Your task to perform on an android device: Search for logitech g pro on target, select the first entry, add it to the cart, then select checkout. Image 0: 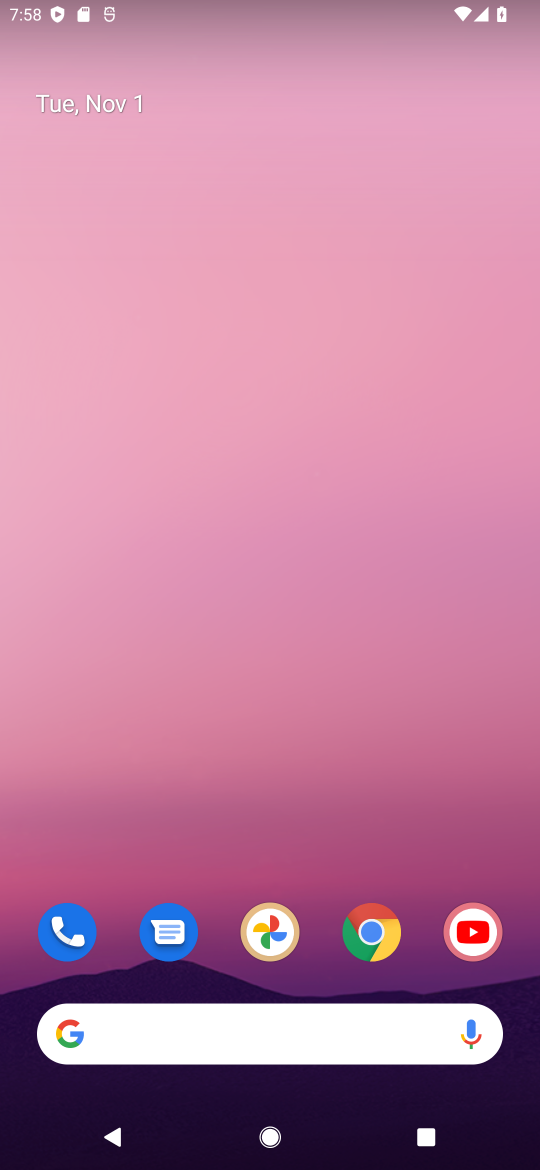
Step 0: click (371, 934)
Your task to perform on an android device: Search for logitech g pro on target, select the first entry, add it to the cart, then select checkout. Image 1: 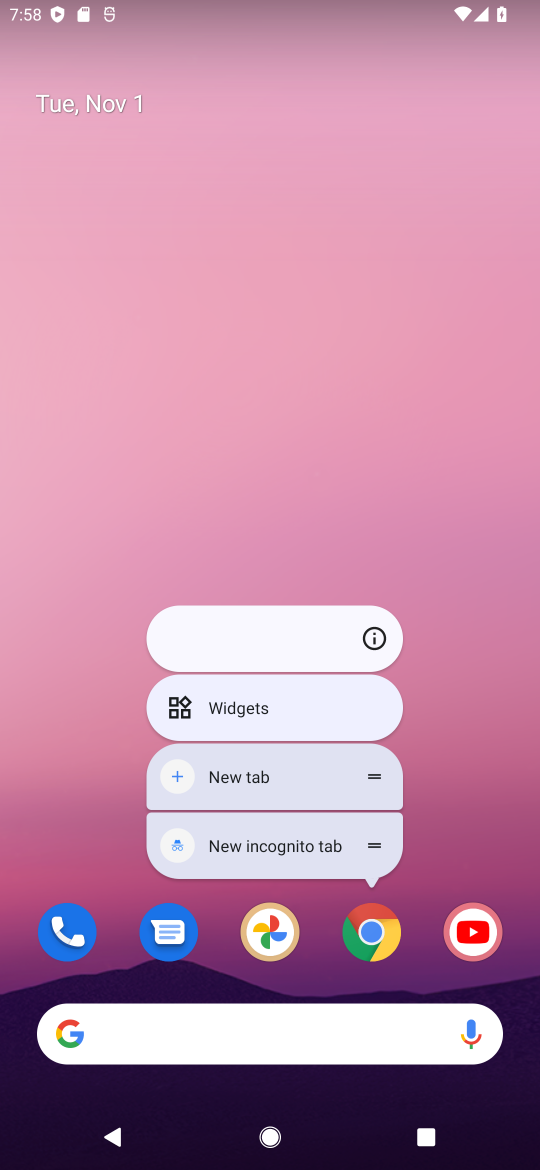
Step 1: click (372, 934)
Your task to perform on an android device: Search for logitech g pro on target, select the first entry, add it to the cart, then select checkout. Image 2: 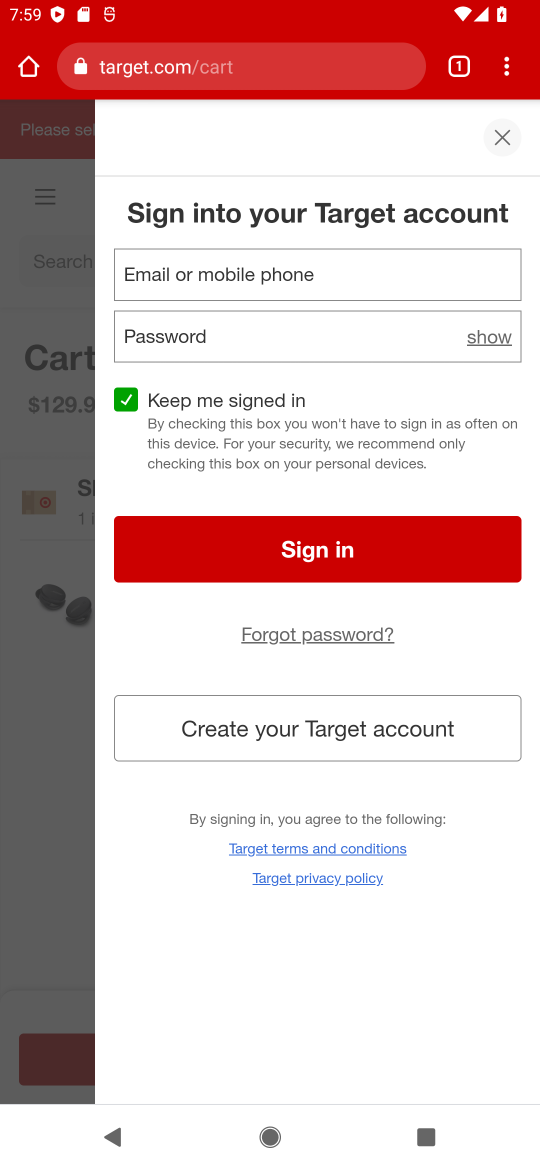
Step 2: click (513, 143)
Your task to perform on an android device: Search for logitech g pro on target, select the first entry, add it to the cart, then select checkout. Image 3: 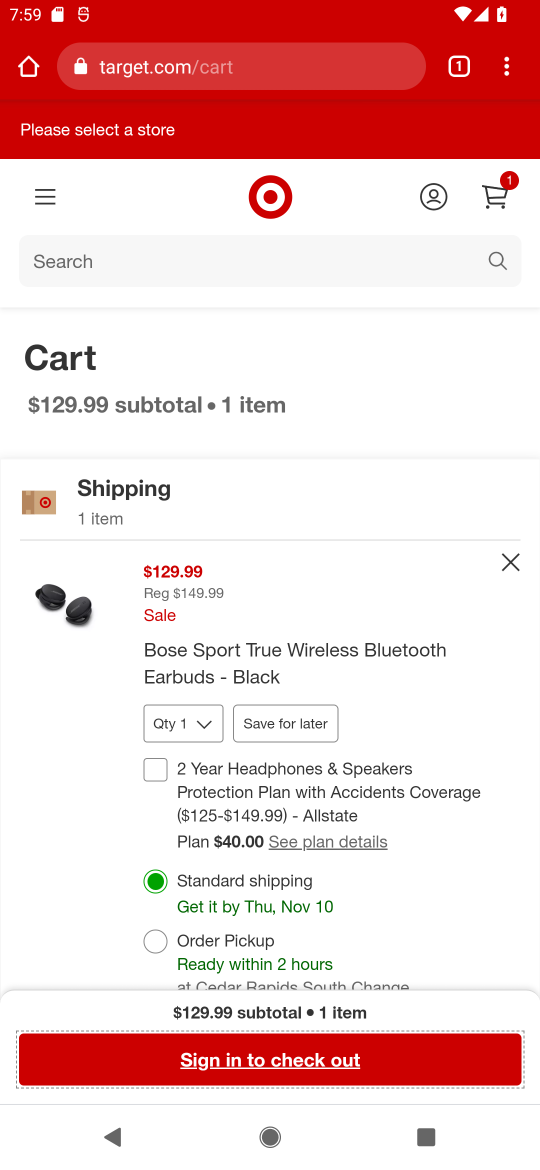
Step 3: drag from (166, 299) to (232, 922)
Your task to perform on an android device: Search for logitech g pro on target, select the first entry, add it to the cart, then select checkout. Image 4: 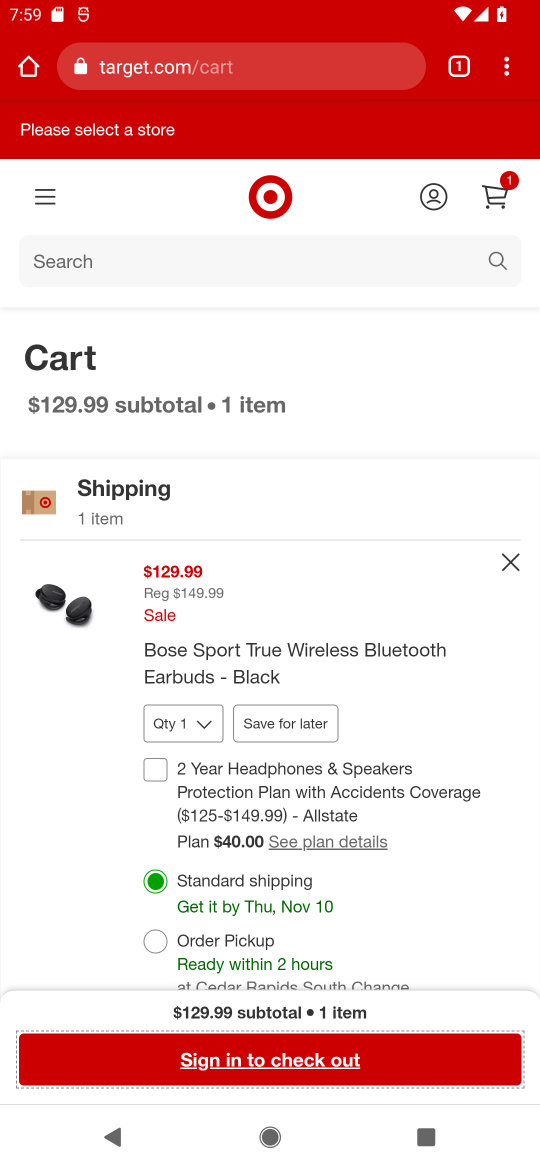
Step 4: click (494, 259)
Your task to perform on an android device: Search for logitech g pro on target, select the first entry, add it to the cart, then select checkout. Image 5: 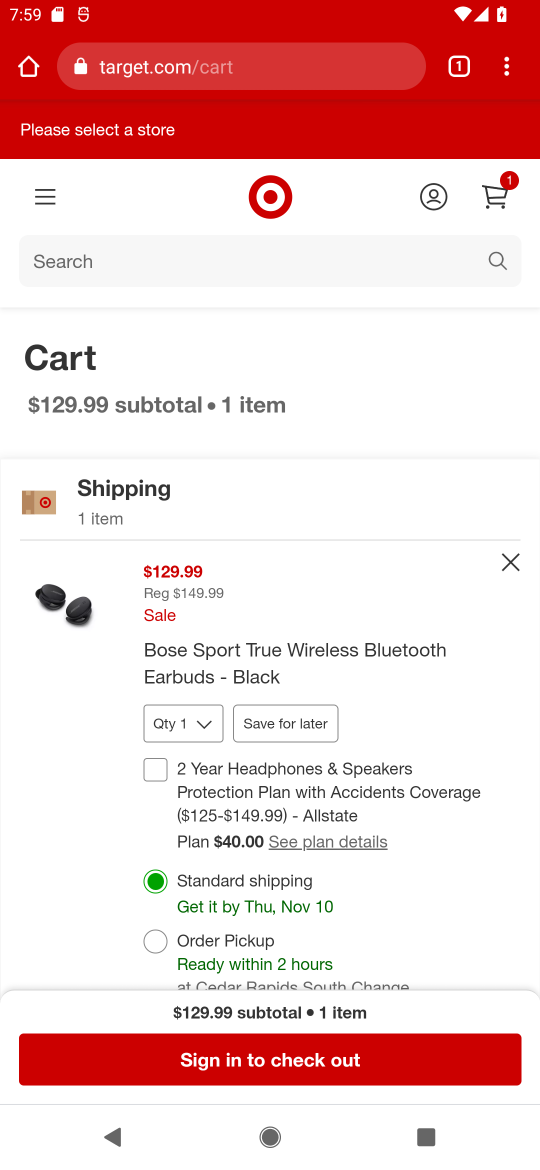
Step 5: click (500, 262)
Your task to perform on an android device: Search for logitech g pro on target, select the first entry, add it to the cart, then select checkout. Image 6: 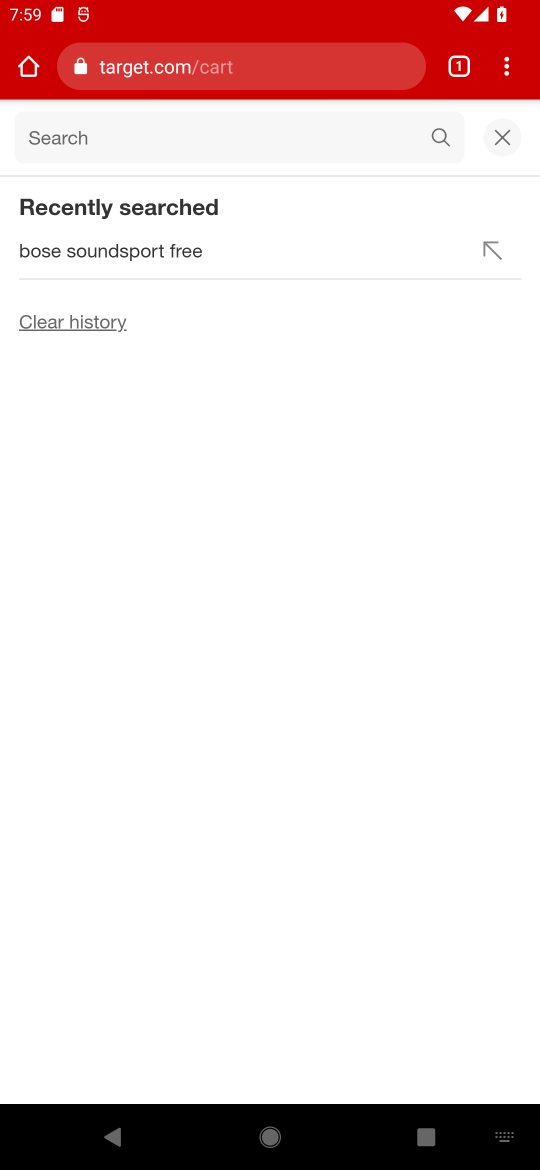
Step 6: type "logitech g pro"
Your task to perform on an android device: Search for logitech g pro on target, select the first entry, add it to the cart, then select checkout. Image 7: 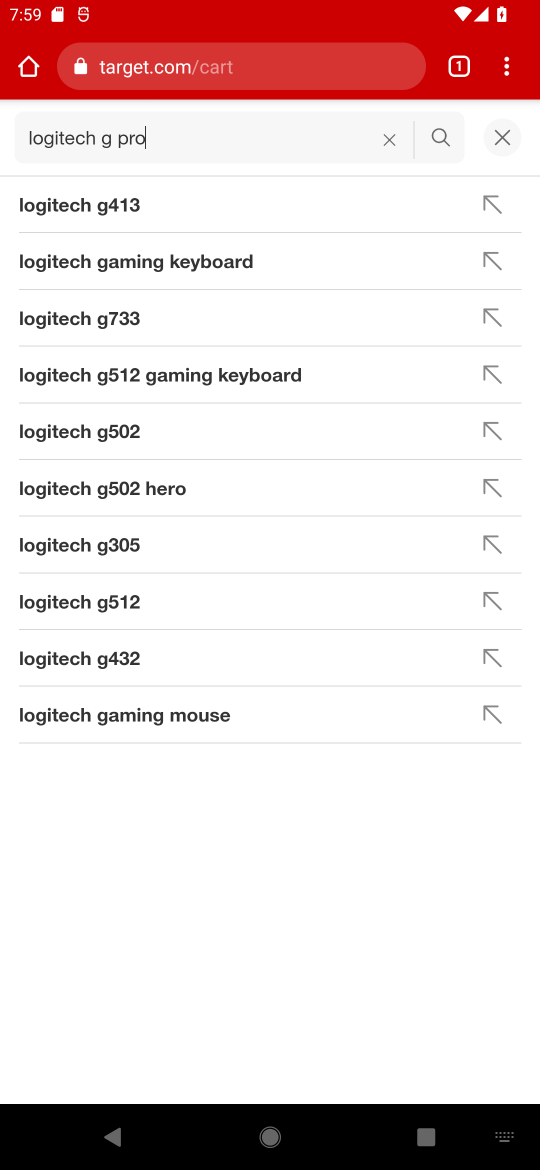
Step 7: click (445, 131)
Your task to perform on an android device: Search for logitech g pro on target, select the first entry, add it to the cart, then select checkout. Image 8: 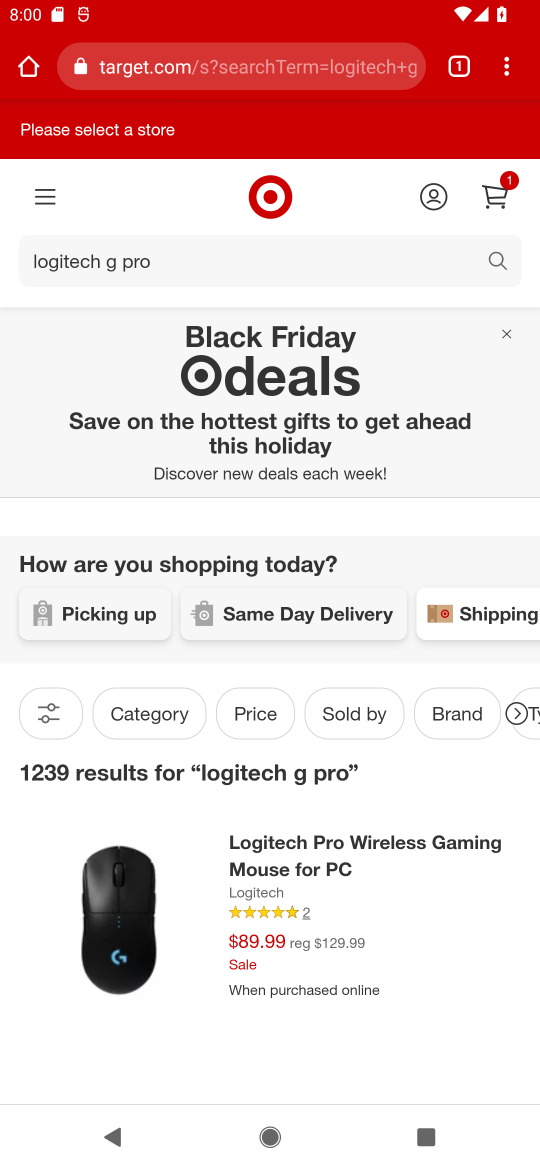
Step 8: drag from (205, 896) to (250, 630)
Your task to perform on an android device: Search for logitech g pro on target, select the first entry, add it to the cart, then select checkout. Image 9: 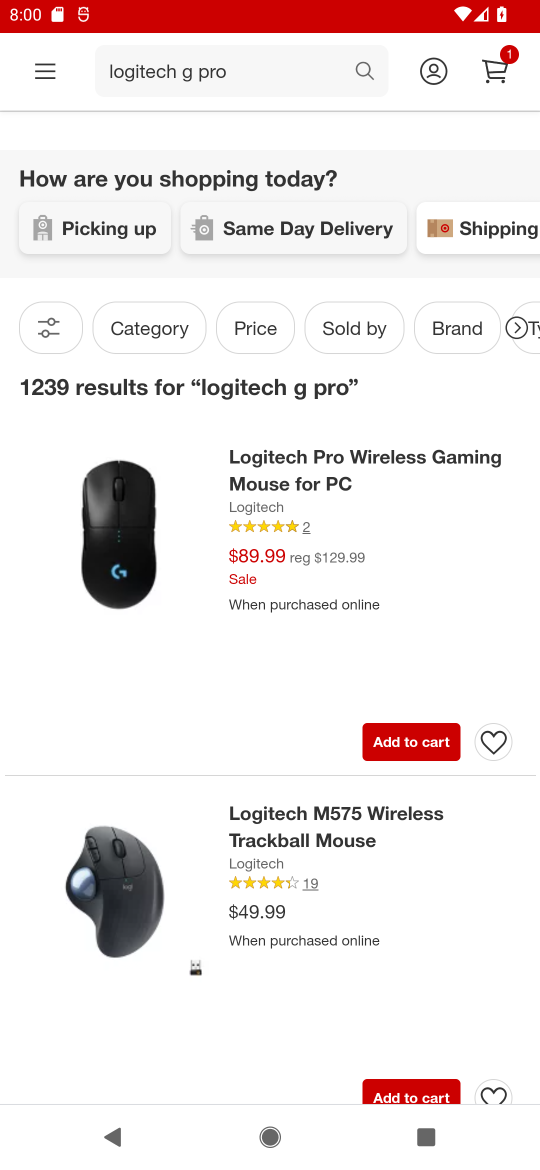
Step 9: click (261, 524)
Your task to perform on an android device: Search for logitech g pro on target, select the first entry, add it to the cart, then select checkout. Image 10: 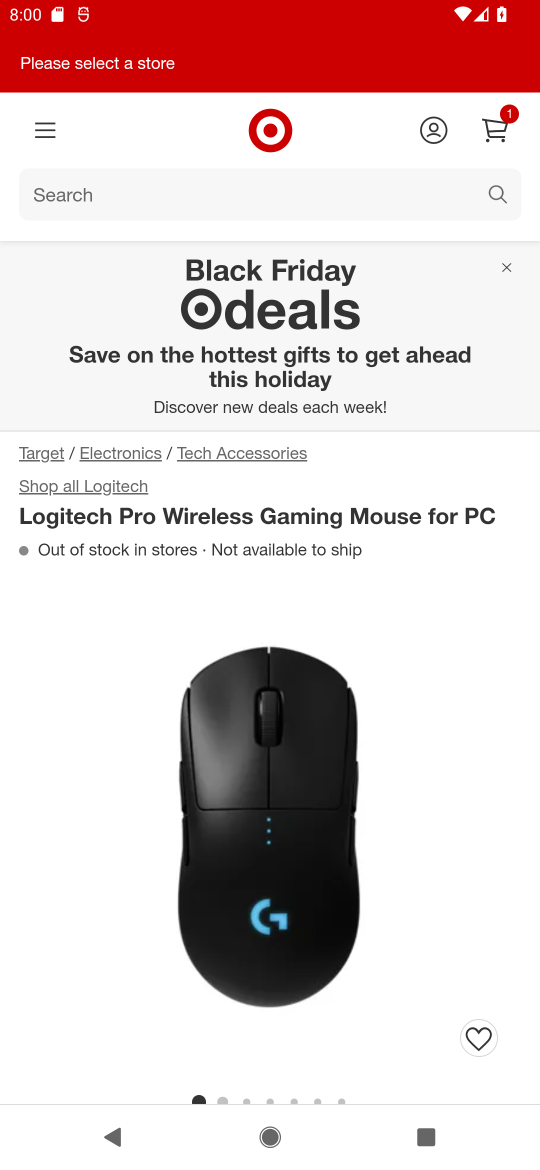
Step 10: drag from (400, 694) to (425, 308)
Your task to perform on an android device: Search for logitech g pro on target, select the first entry, add it to the cart, then select checkout. Image 11: 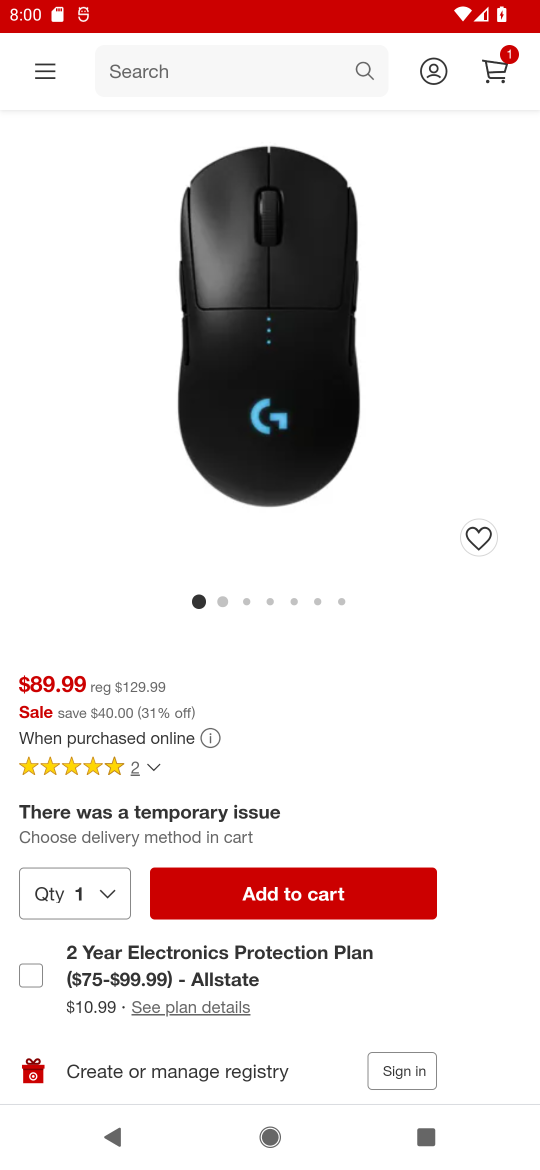
Step 11: drag from (302, 786) to (306, 506)
Your task to perform on an android device: Search for logitech g pro on target, select the first entry, add it to the cart, then select checkout. Image 12: 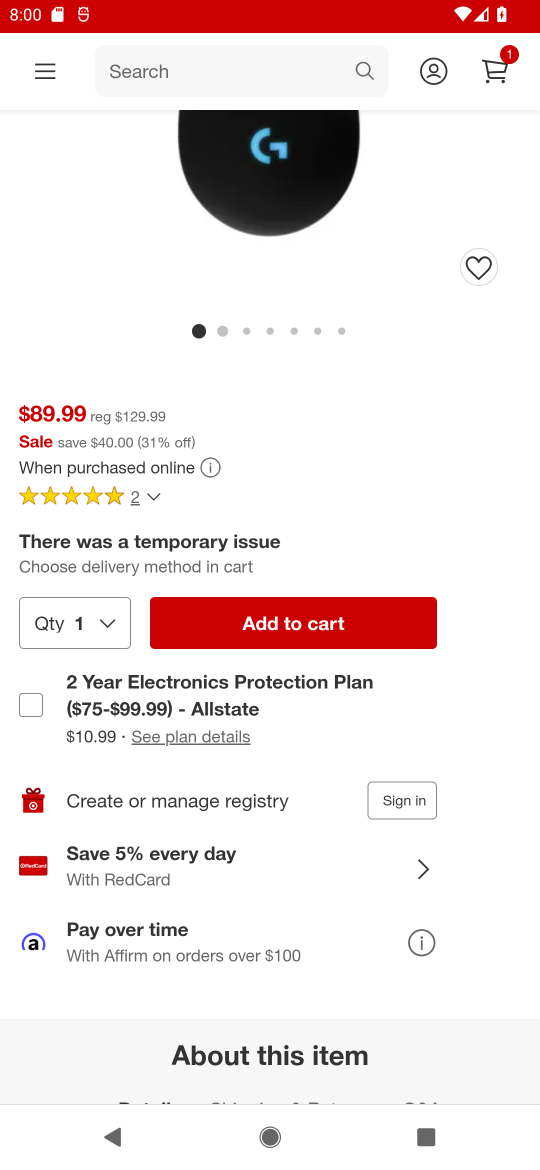
Step 12: click (287, 628)
Your task to perform on an android device: Search for logitech g pro on target, select the first entry, add it to the cart, then select checkout. Image 13: 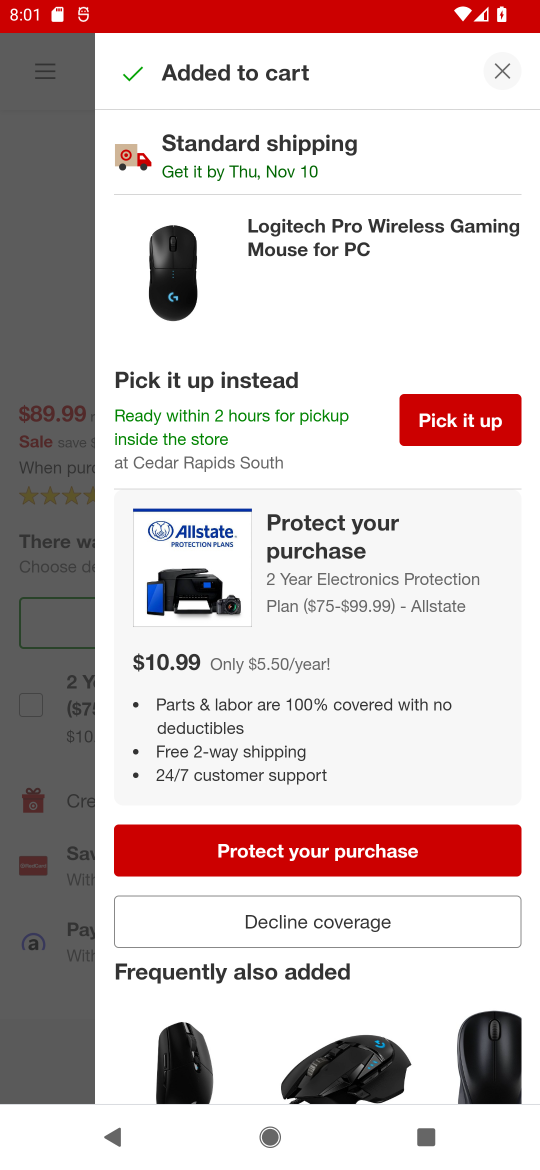
Step 13: click (513, 78)
Your task to perform on an android device: Search for logitech g pro on target, select the first entry, add it to the cart, then select checkout. Image 14: 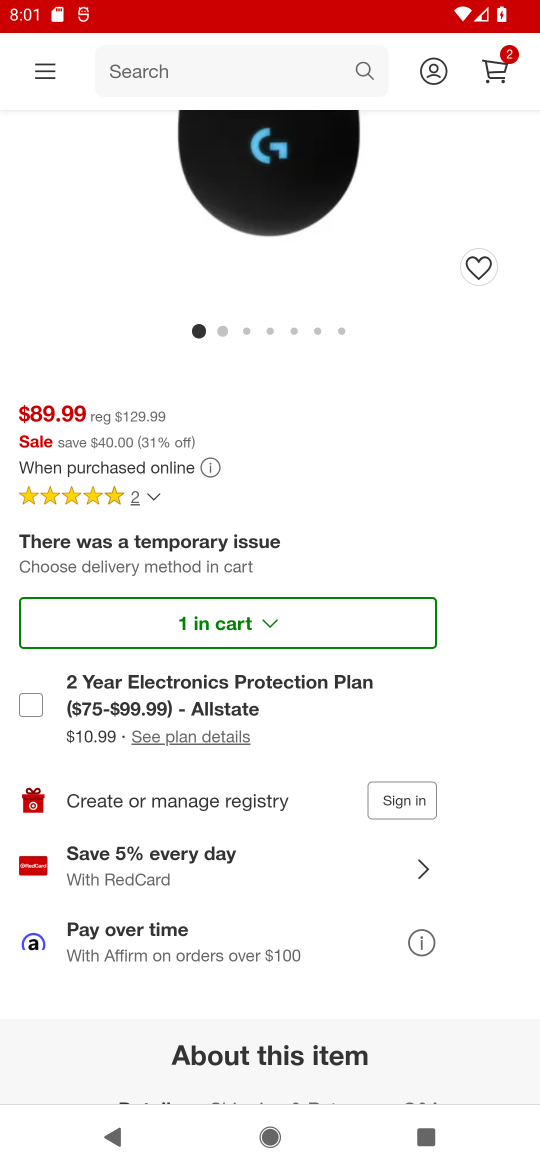
Step 14: click (261, 622)
Your task to perform on an android device: Search for logitech g pro on target, select the first entry, add it to the cart, then select checkout. Image 15: 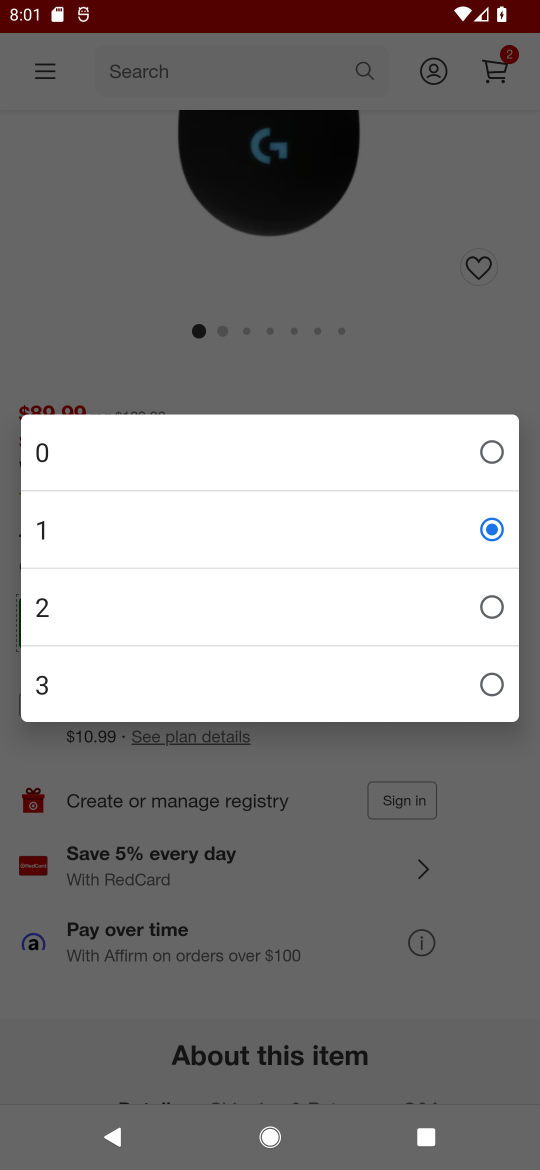
Step 15: click (370, 538)
Your task to perform on an android device: Search for logitech g pro on target, select the first entry, add it to the cart, then select checkout. Image 16: 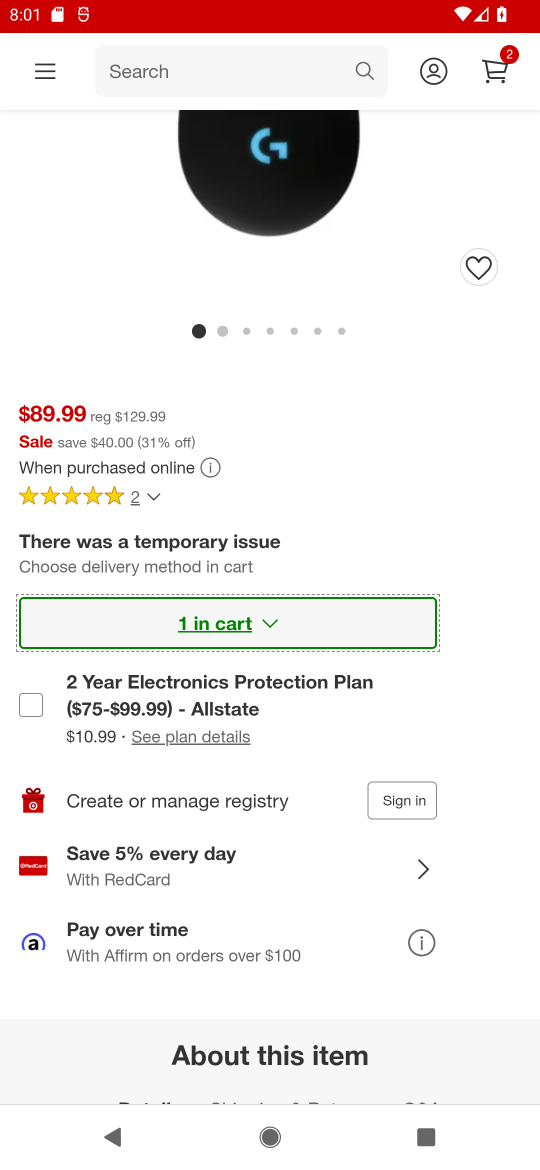
Step 16: click (494, 66)
Your task to perform on an android device: Search for logitech g pro on target, select the first entry, add it to the cart, then select checkout. Image 17: 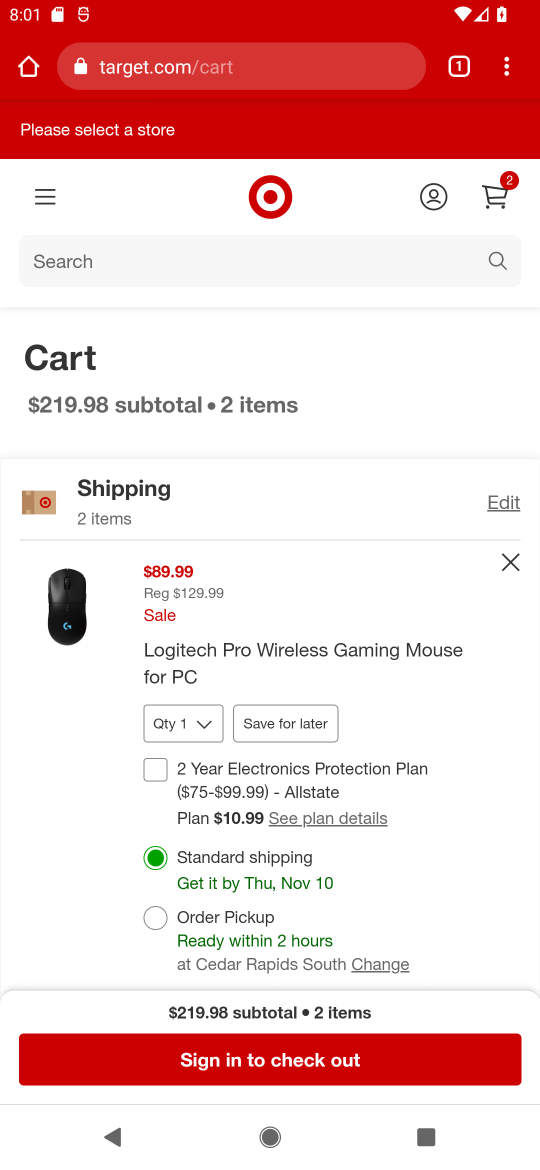
Step 17: click (279, 1081)
Your task to perform on an android device: Search for logitech g pro on target, select the first entry, add it to the cart, then select checkout. Image 18: 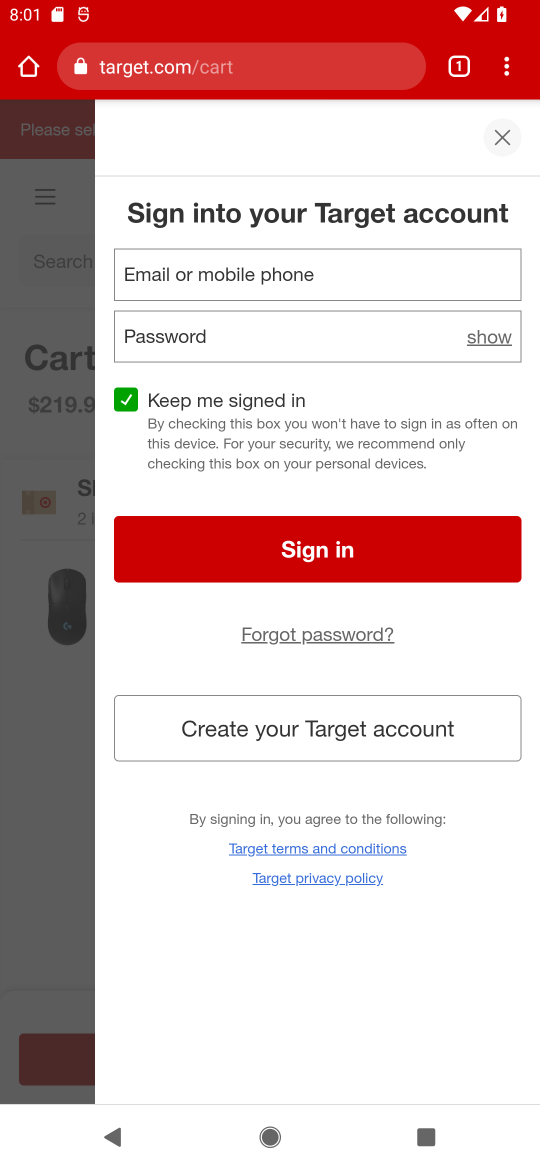
Step 18: task complete